Your task to perform on an android device: open app "DuckDuckGo Privacy Browser" (install if not already installed) Image 0: 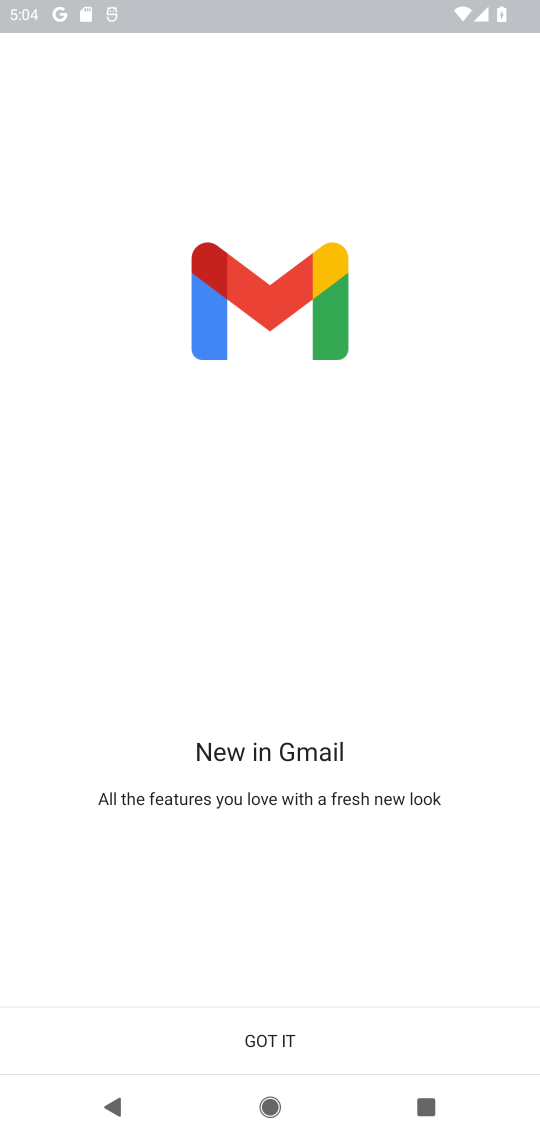
Step 0: press home button
Your task to perform on an android device: open app "DuckDuckGo Privacy Browser" (install if not already installed) Image 1: 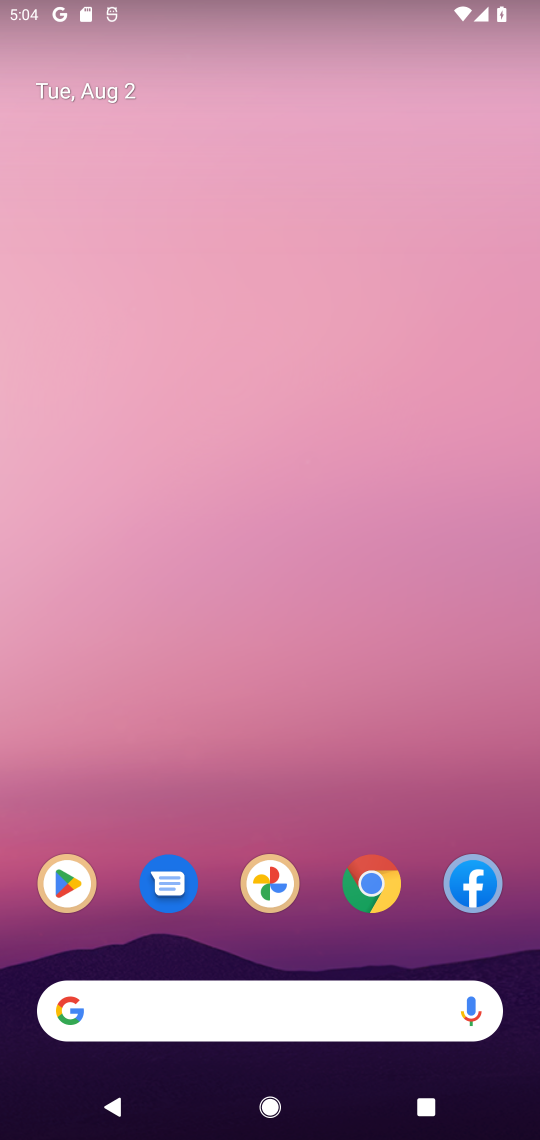
Step 1: click (66, 891)
Your task to perform on an android device: open app "DuckDuckGo Privacy Browser" (install if not already installed) Image 2: 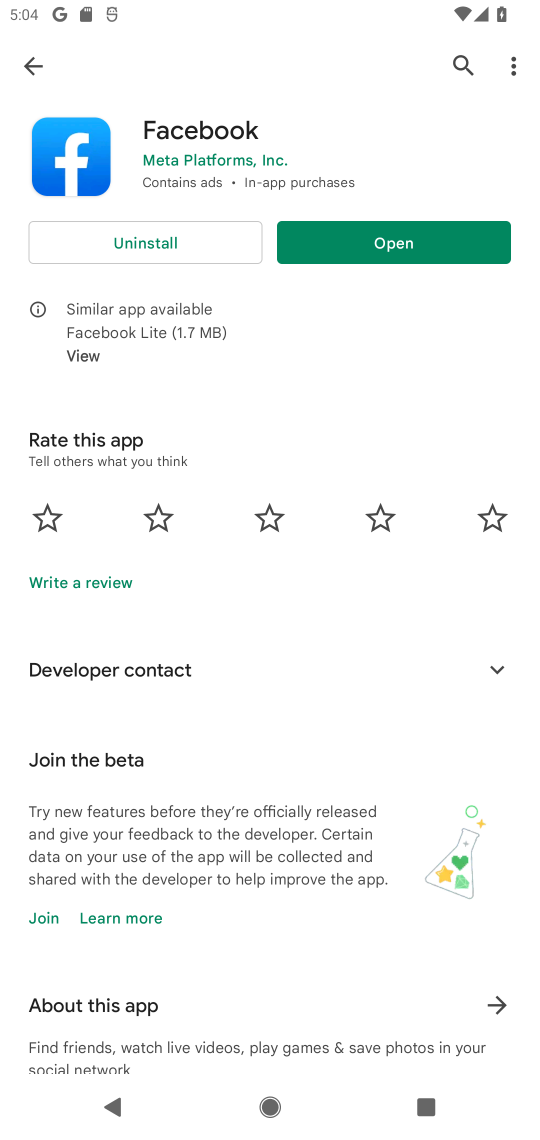
Step 2: click (28, 79)
Your task to perform on an android device: open app "DuckDuckGo Privacy Browser" (install if not already installed) Image 3: 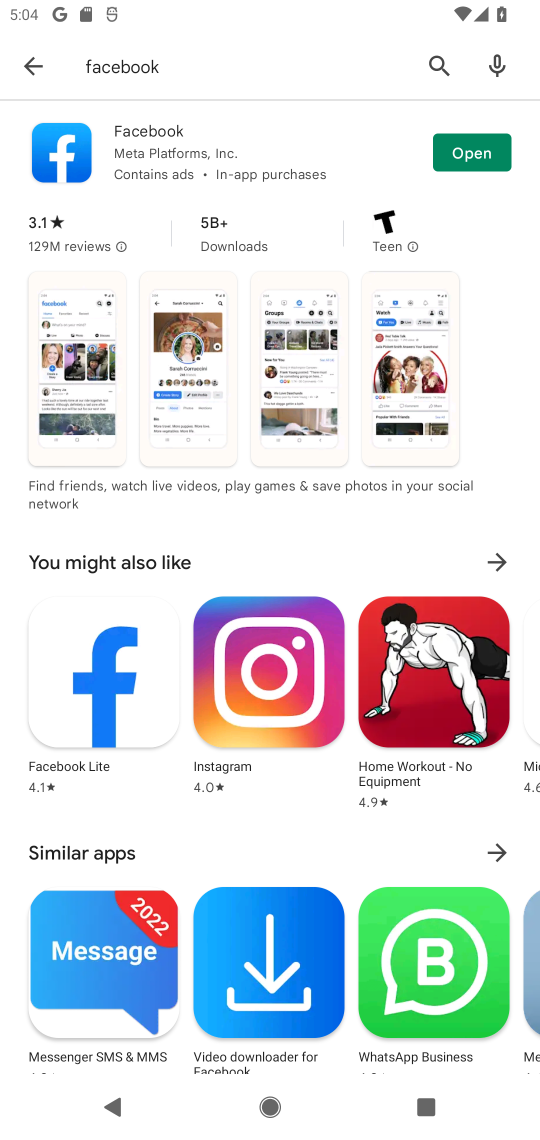
Step 3: click (34, 77)
Your task to perform on an android device: open app "DuckDuckGo Privacy Browser" (install if not already installed) Image 4: 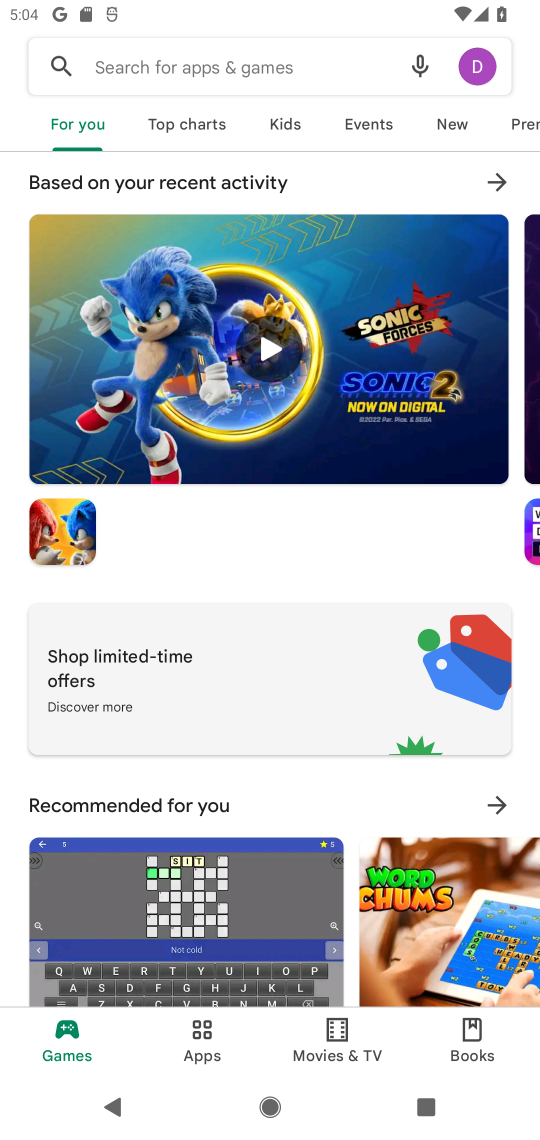
Step 4: click (161, 93)
Your task to perform on an android device: open app "DuckDuckGo Privacy Browser" (install if not already installed) Image 5: 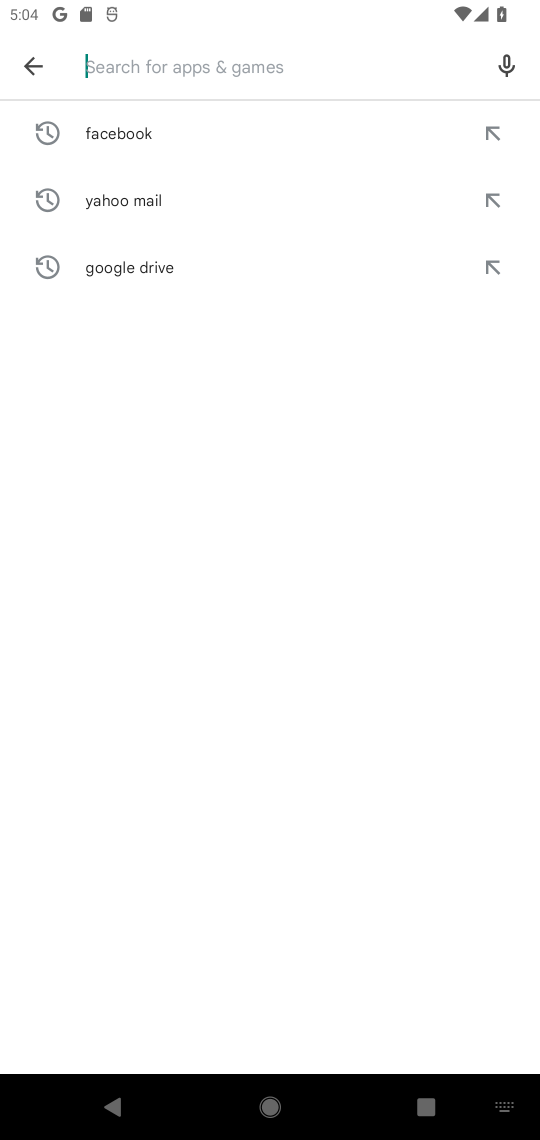
Step 5: type "DuckDuckGo Privacy Browser"
Your task to perform on an android device: open app "DuckDuckGo Privacy Browser" (install if not already installed) Image 6: 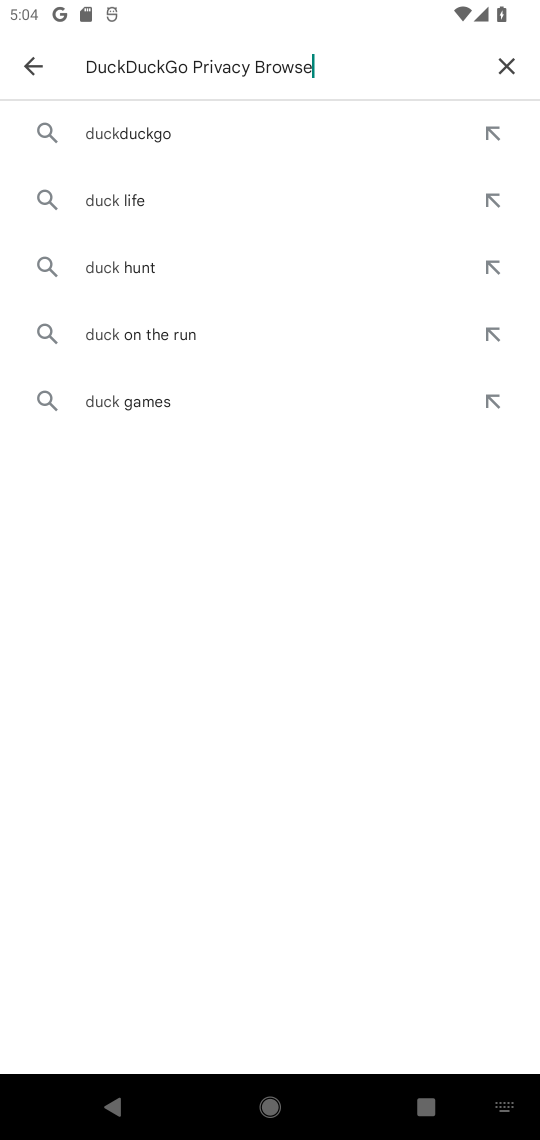
Step 6: type ""
Your task to perform on an android device: open app "DuckDuckGo Privacy Browser" (install if not already installed) Image 7: 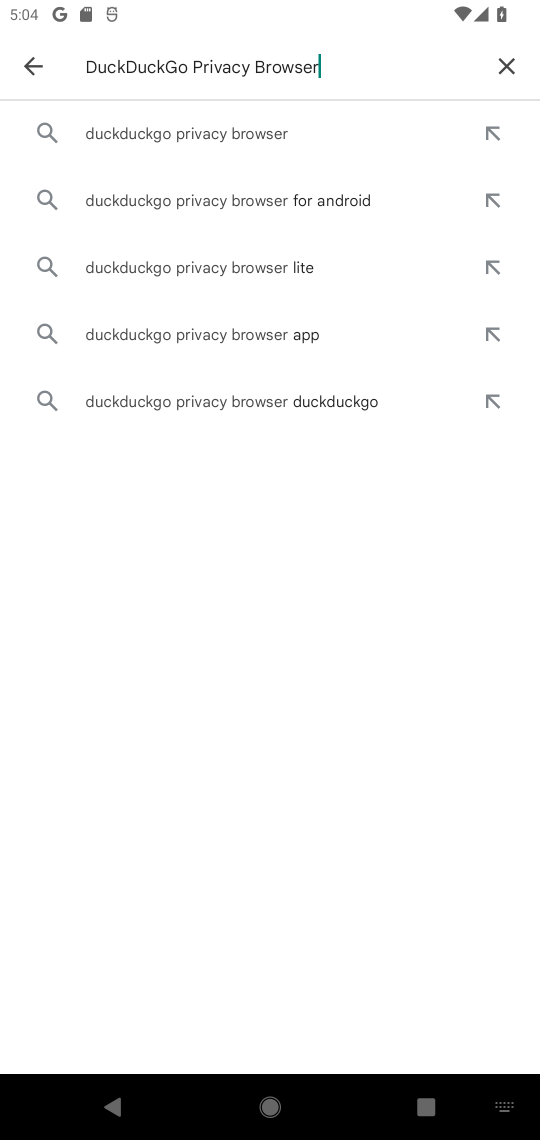
Step 7: click (184, 117)
Your task to perform on an android device: open app "DuckDuckGo Privacy Browser" (install if not already installed) Image 8: 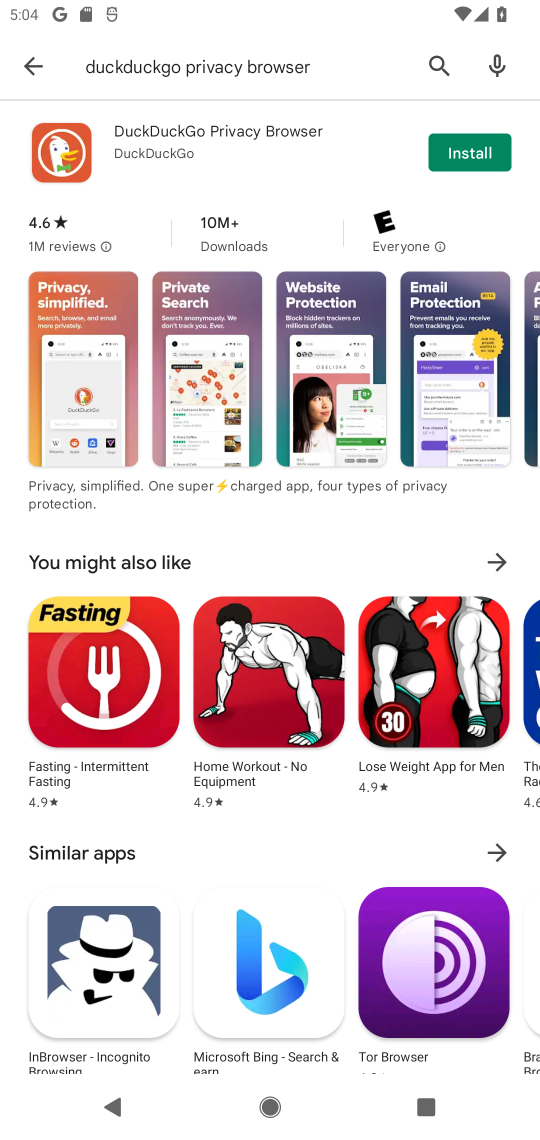
Step 8: click (446, 169)
Your task to perform on an android device: open app "DuckDuckGo Privacy Browser" (install if not already installed) Image 9: 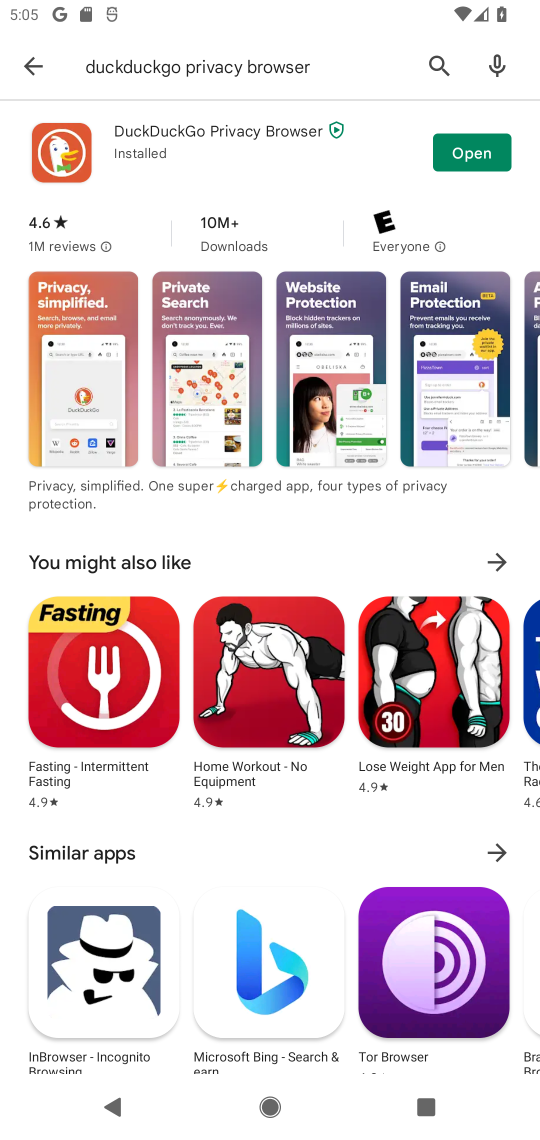
Step 9: click (465, 148)
Your task to perform on an android device: open app "DuckDuckGo Privacy Browser" (install if not already installed) Image 10: 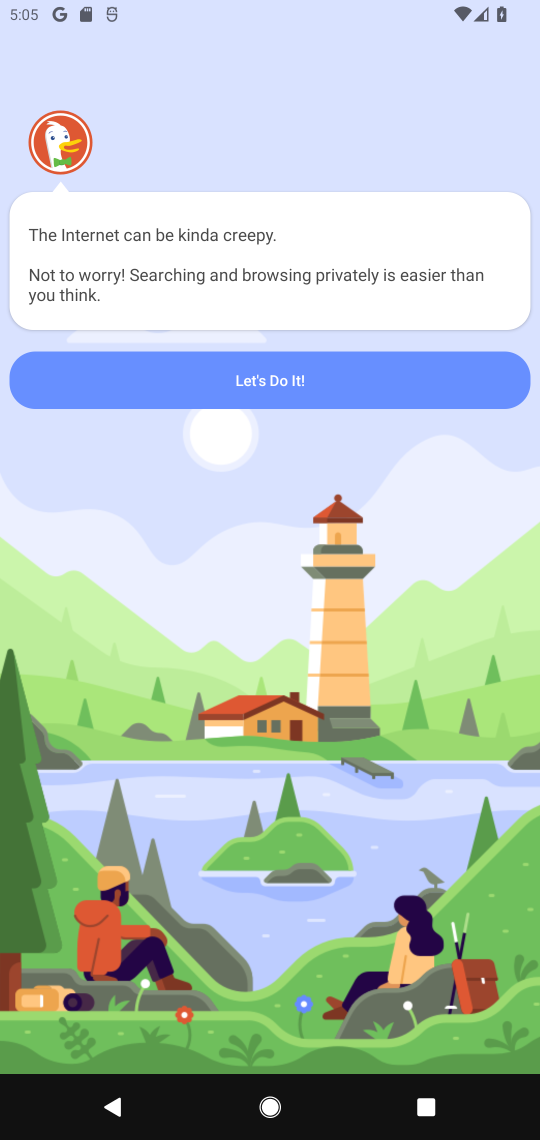
Step 10: task complete